Your task to perform on an android device: all mails in gmail Image 0: 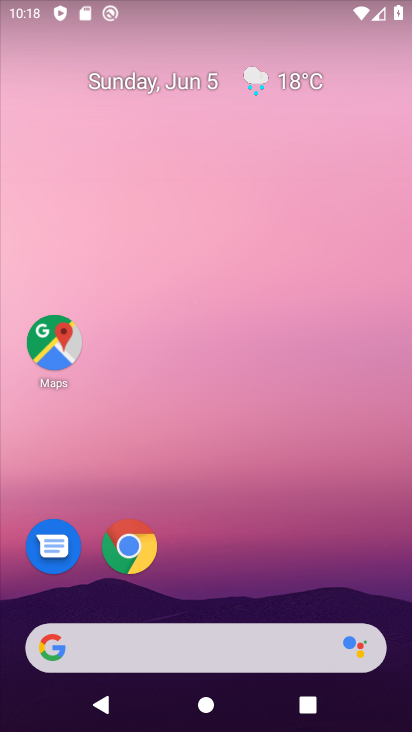
Step 0: drag from (204, 436) to (267, 130)
Your task to perform on an android device: all mails in gmail Image 1: 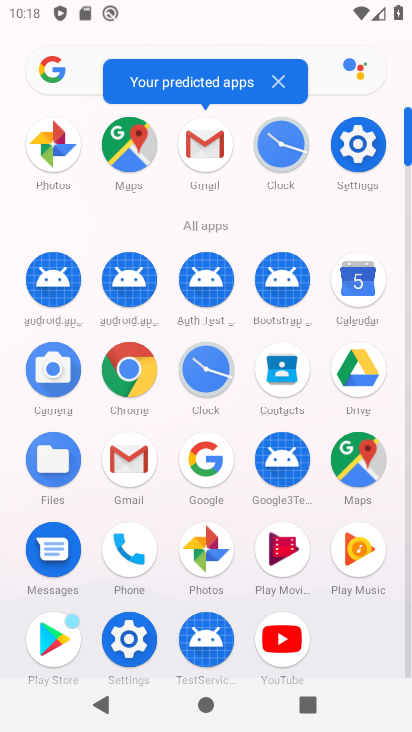
Step 1: click (124, 462)
Your task to perform on an android device: all mails in gmail Image 2: 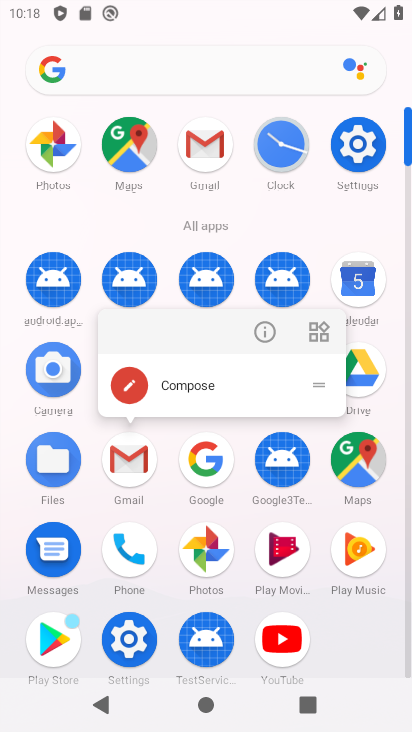
Step 2: click (257, 329)
Your task to perform on an android device: all mails in gmail Image 3: 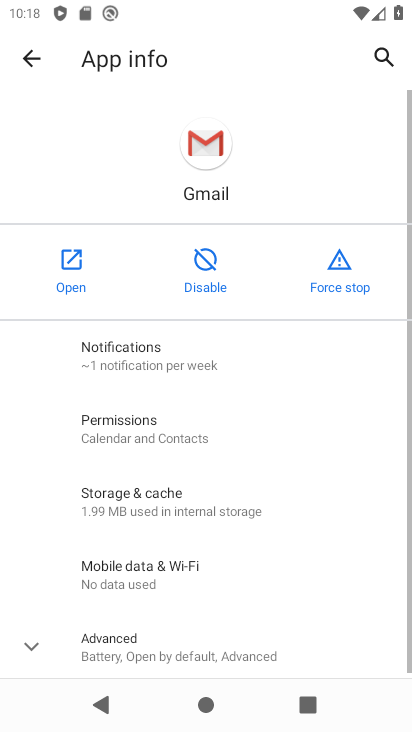
Step 3: click (54, 264)
Your task to perform on an android device: all mails in gmail Image 4: 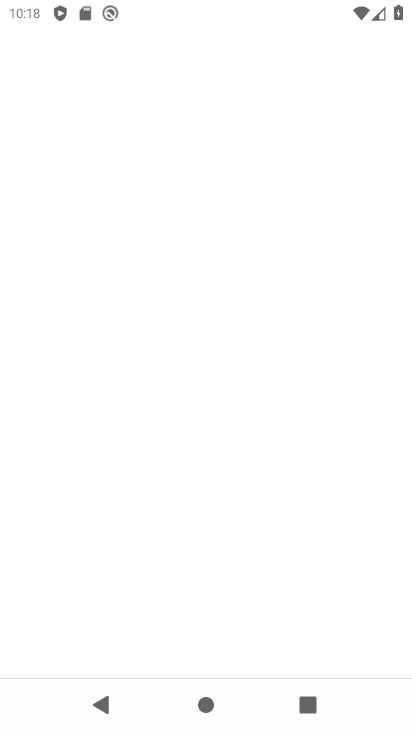
Step 4: drag from (229, 447) to (299, 120)
Your task to perform on an android device: all mails in gmail Image 5: 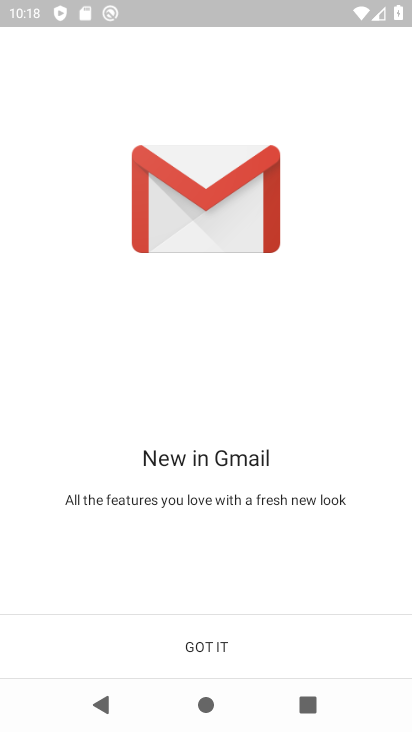
Step 5: drag from (249, 443) to (322, 168)
Your task to perform on an android device: all mails in gmail Image 6: 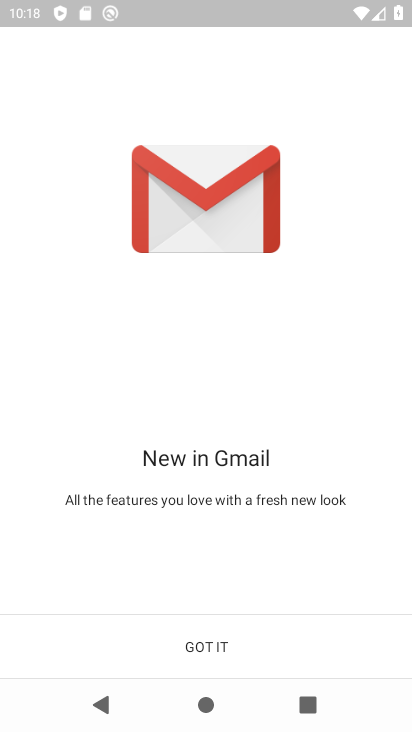
Step 6: click (211, 663)
Your task to perform on an android device: all mails in gmail Image 7: 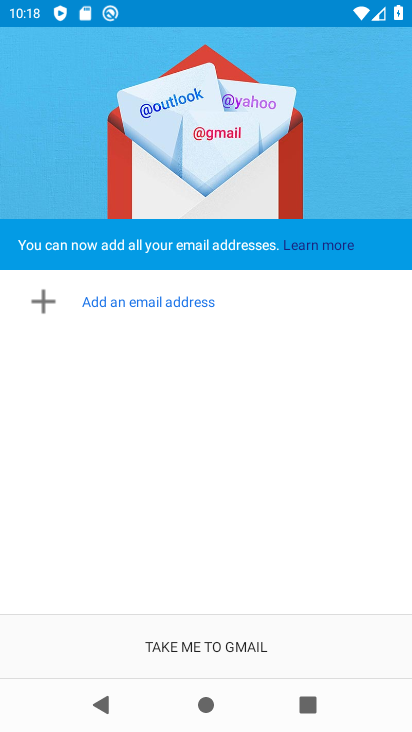
Step 7: drag from (234, 590) to (275, 280)
Your task to perform on an android device: all mails in gmail Image 8: 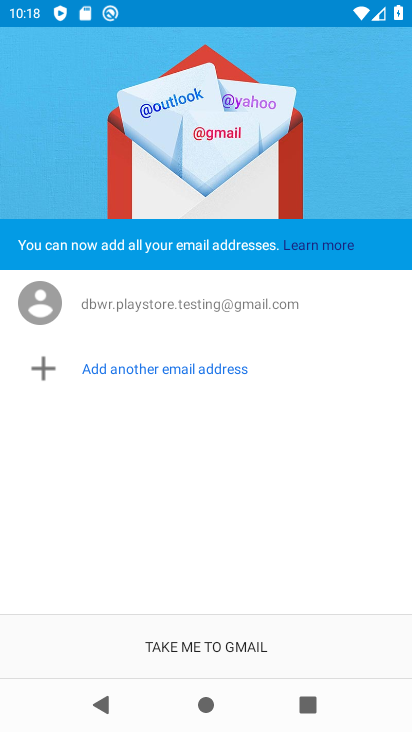
Step 8: click (190, 636)
Your task to perform on an android device: all mails in gmail Image 9: 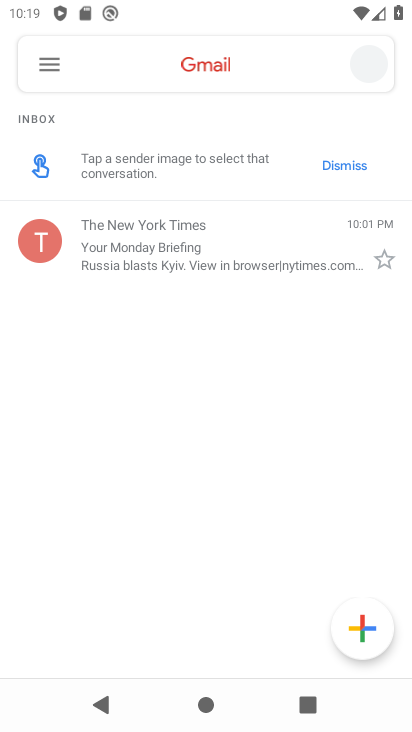
Step 9: click (45, 81)
Your task to perform on an android device: all mails in gmail Image 10: 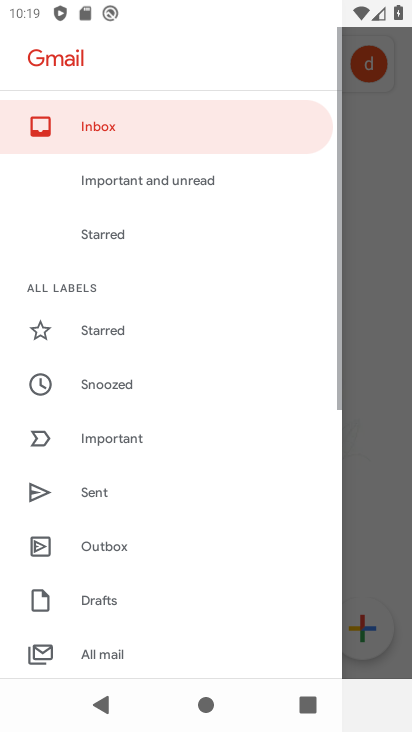
Step 10: drag from (205, 569) to (292, 120)
Your task to perform on an android device: all mails in gmail Image 11: 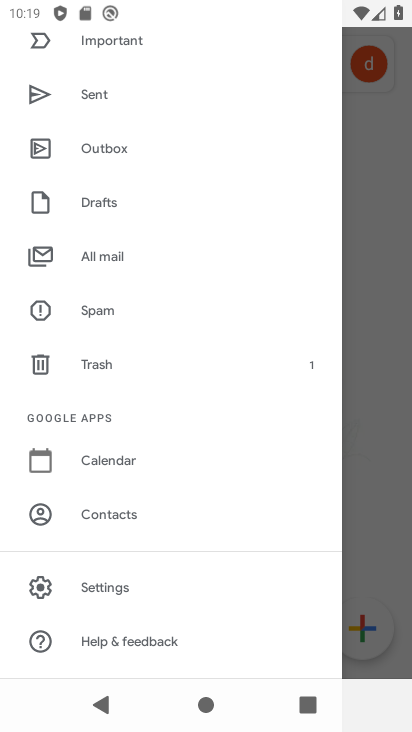
Step 11: click (127, 257)
Your task to perform on an android device: all mails in gmail Image 12: 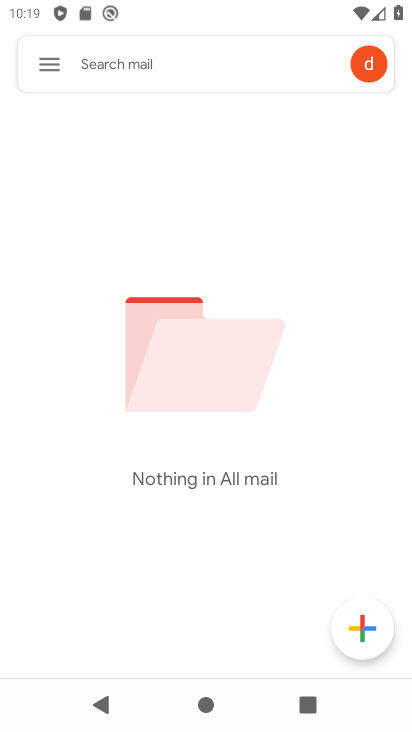
Step 12: click (43, 60)
Your task to perform on an android device: all mails in gmail Image 13: 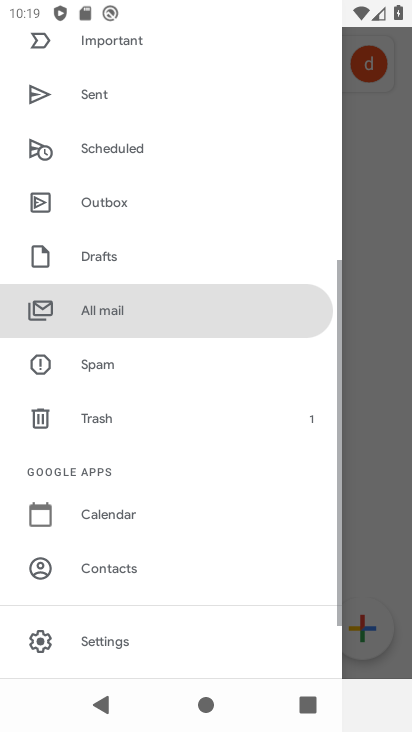
Step 13: click (141, 298)
Your task to perform on an android device: all mails in gmail Image 14: 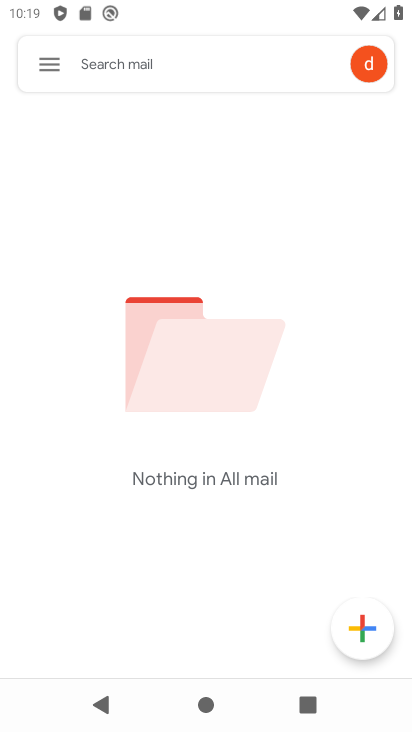
Step 14: task complete